Your task to perform on an android device: manage bookmarks in the chrome app Image 0: 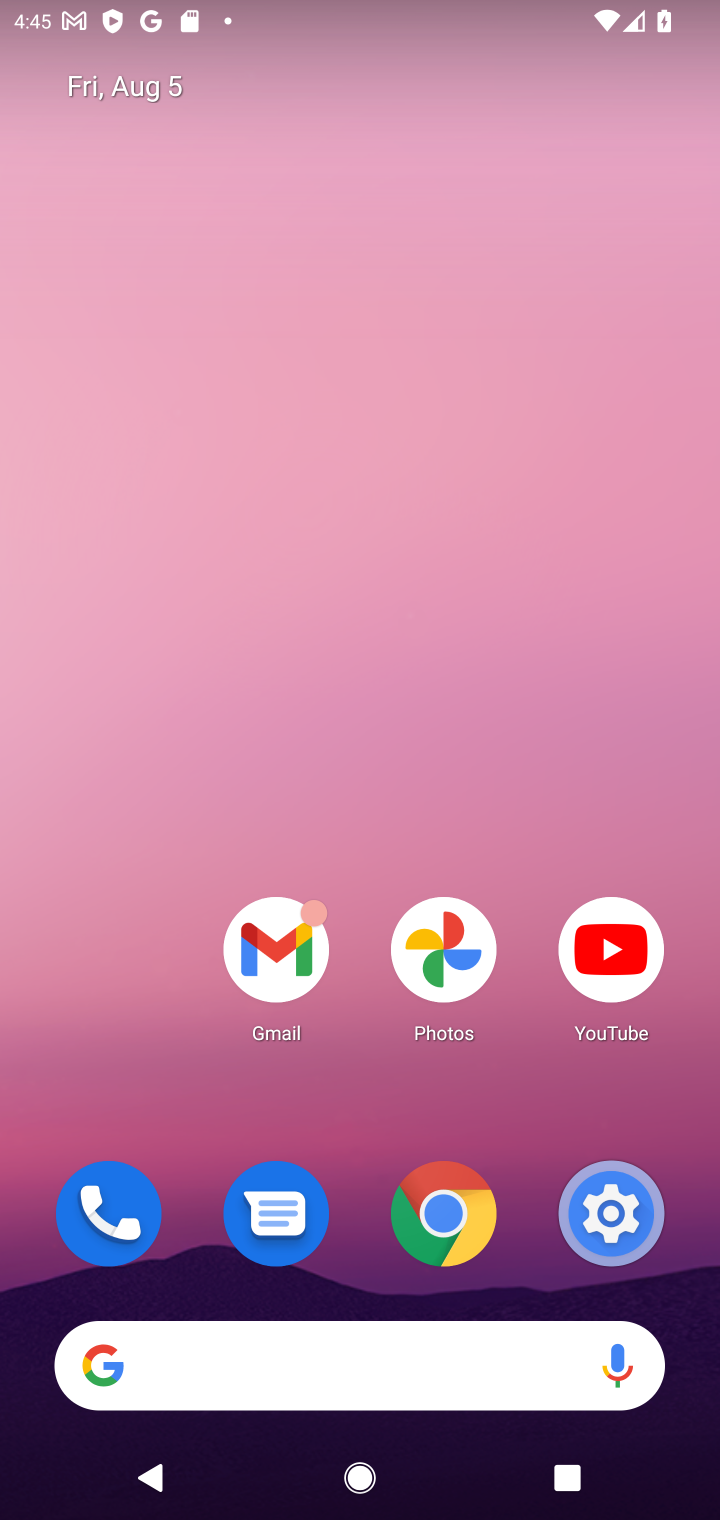
Step 0: click (433, 1199)
Your task to perform on an android device: manage bookmarks in the chrome app Image 1: 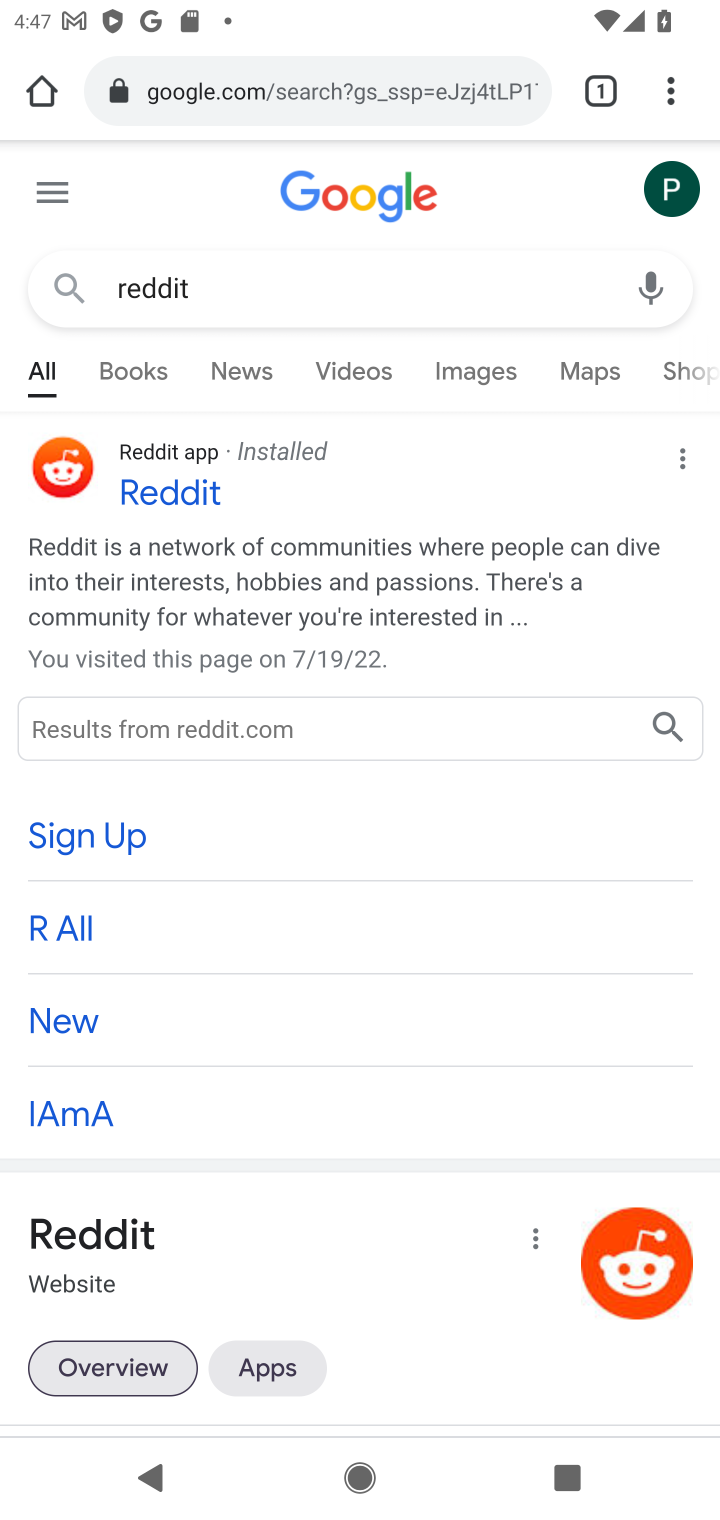
Step 1: click (691, 94)
Your task to perform on an android device: manage bookmarks in the chrome app Image 2: 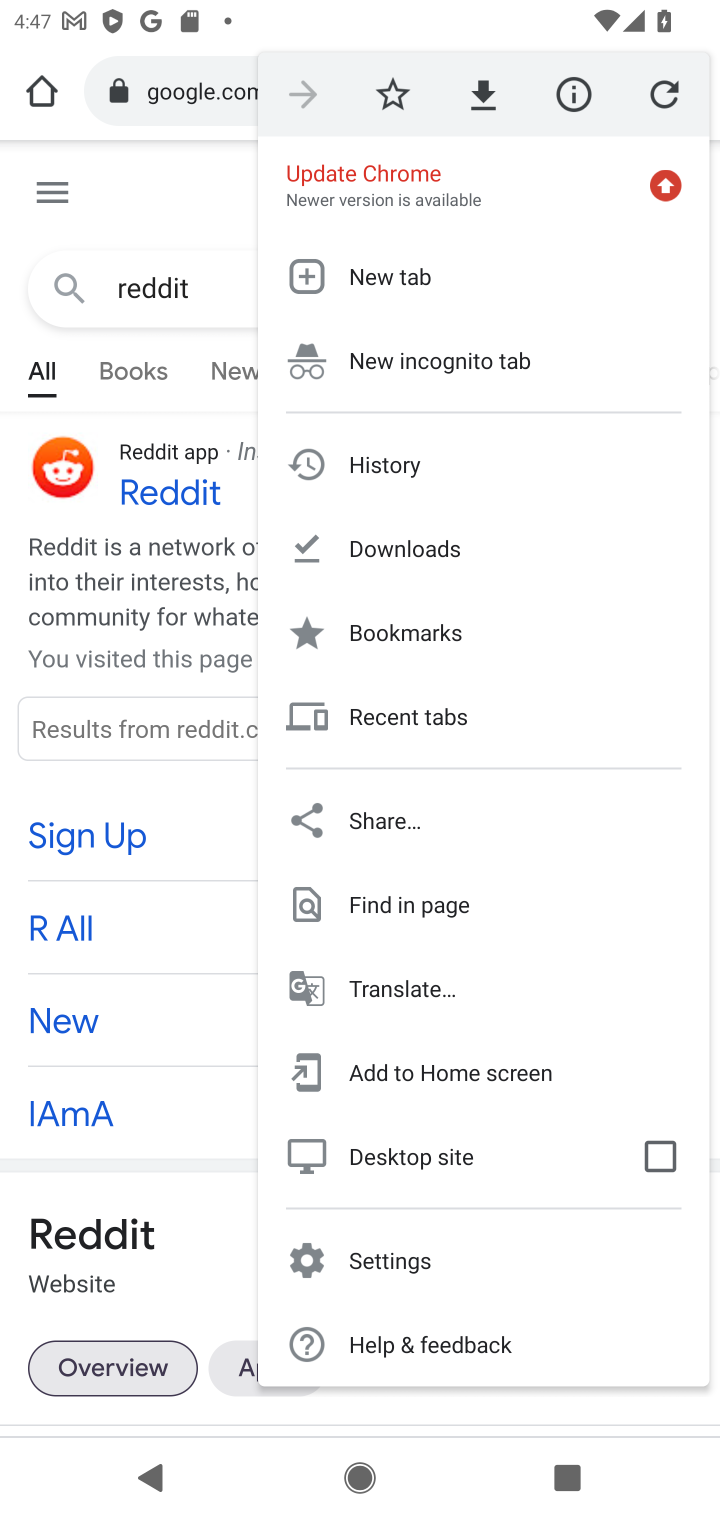
Step 2: click (478, 630)
Your task to perform on an android device: manage bookmarks in the chrome app Image 3: 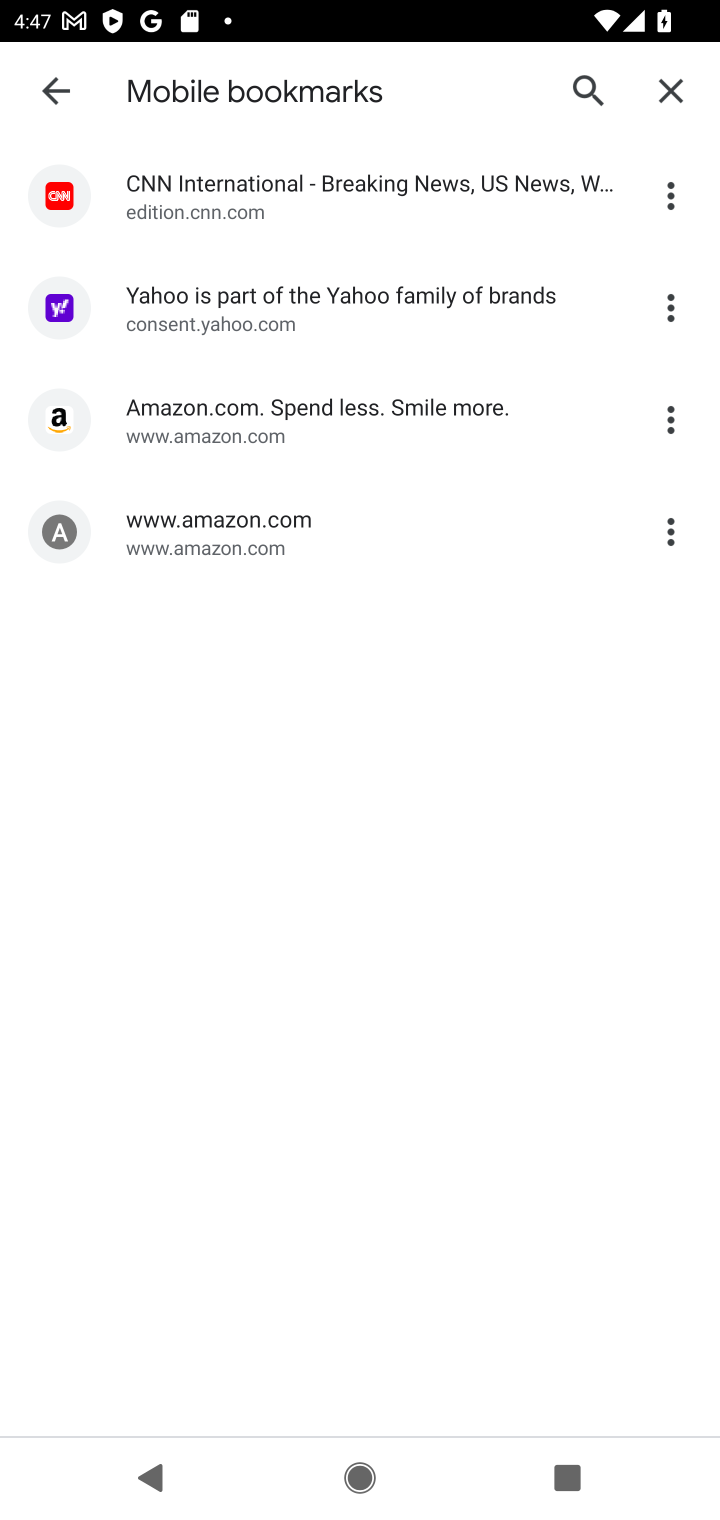
Step 3: task complete